Your task to perform on an android device: clear history in the chrome app Image 0: 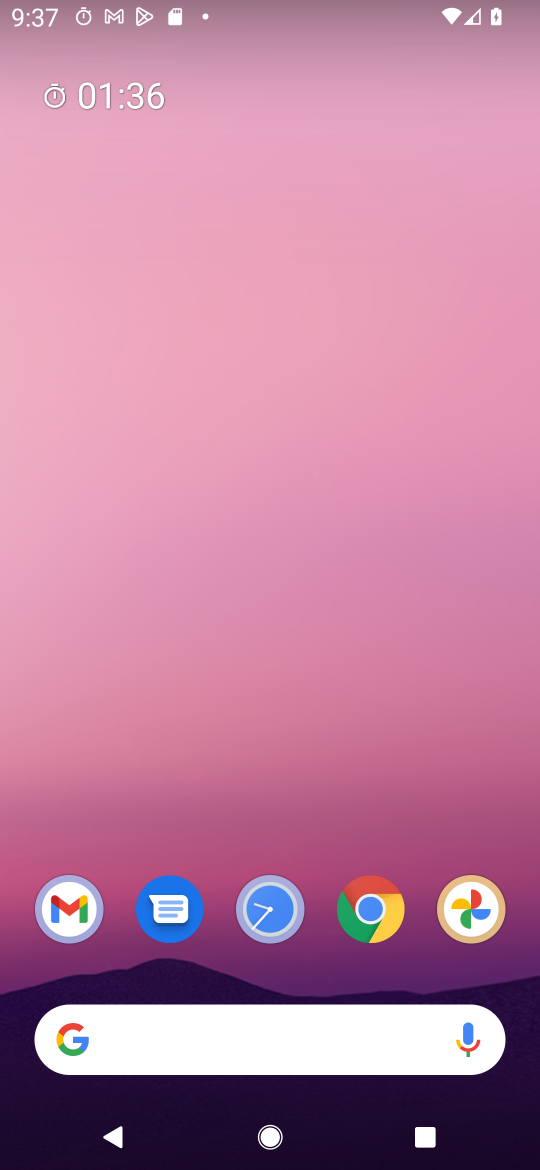
Step 0: press home button
Your task to perform on an android device: clear history in the chrome app Image 1: 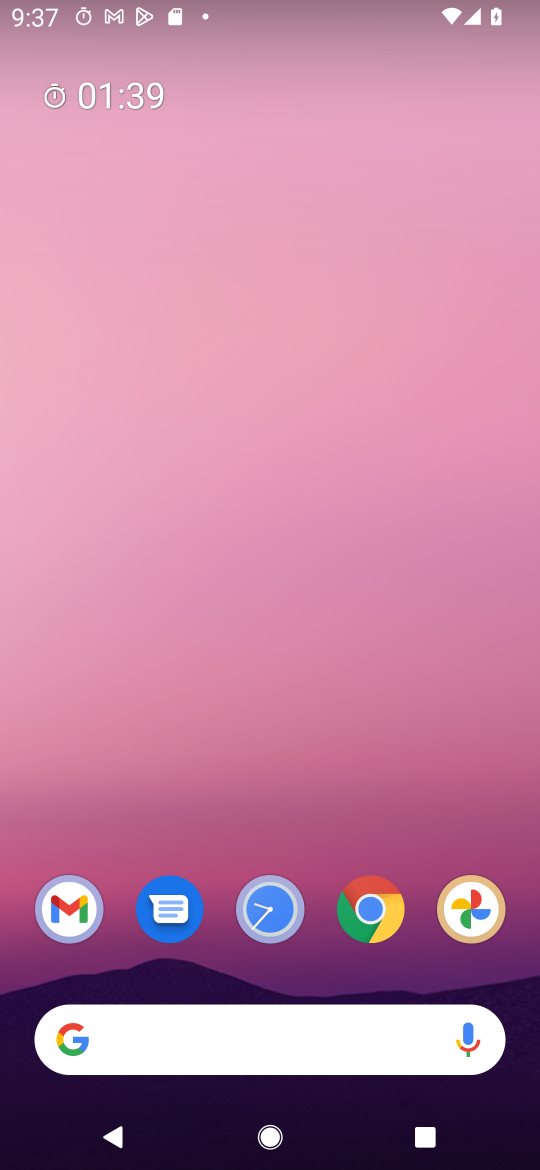
Step 1: drag from (394, 806) to (378, 286)
Your task to perform on an android device: clear history in the chrome app Image 2: 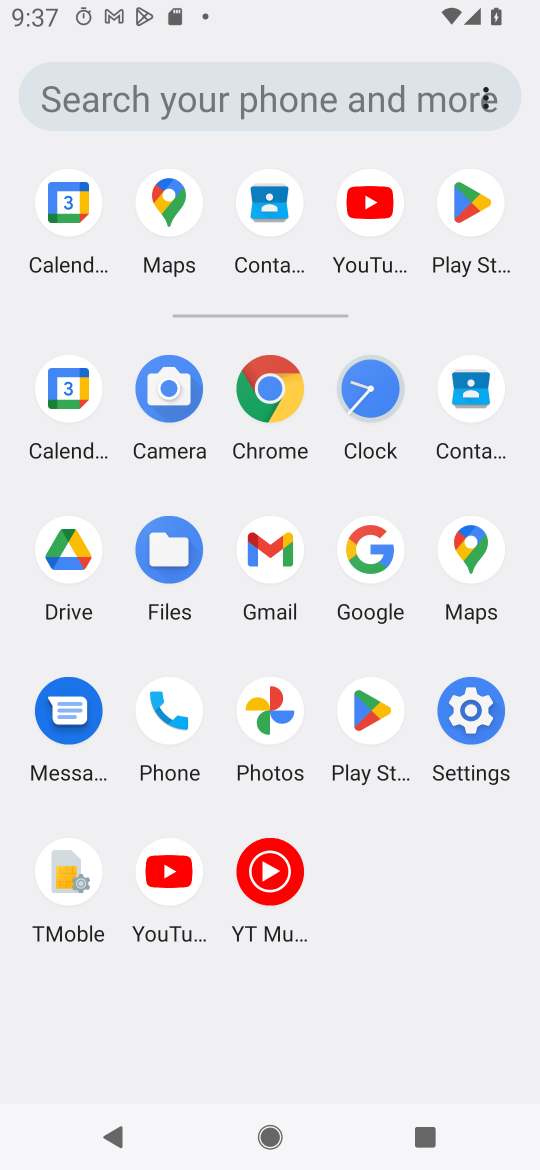
Step 2: click (268, 400)
Your task to perform on an android device: clear history in the chrome app Image 3: 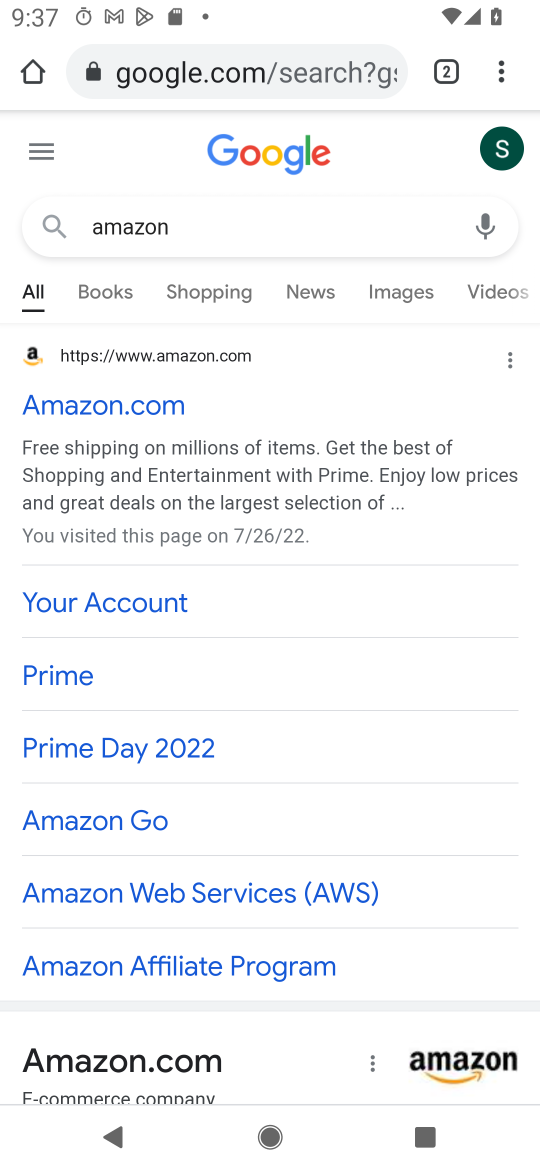
Step 3: click (502, 76)
Your task to perform on an android device: clear history in the chrome app Image 4: 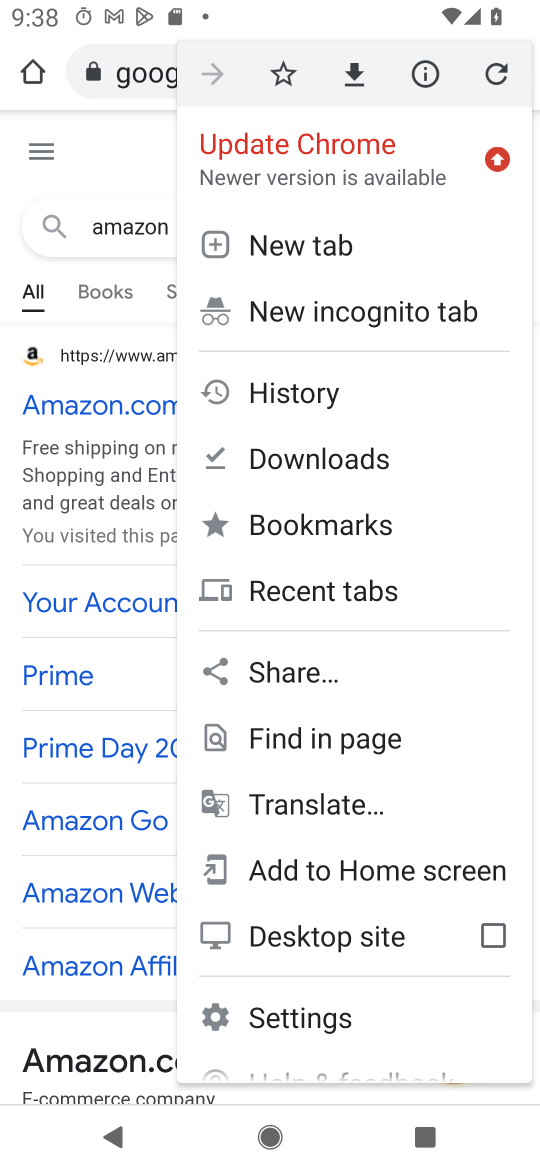
Step 4: click (371, 381)
Your task to perform on an android device: clear history in the chrome app Image 5: 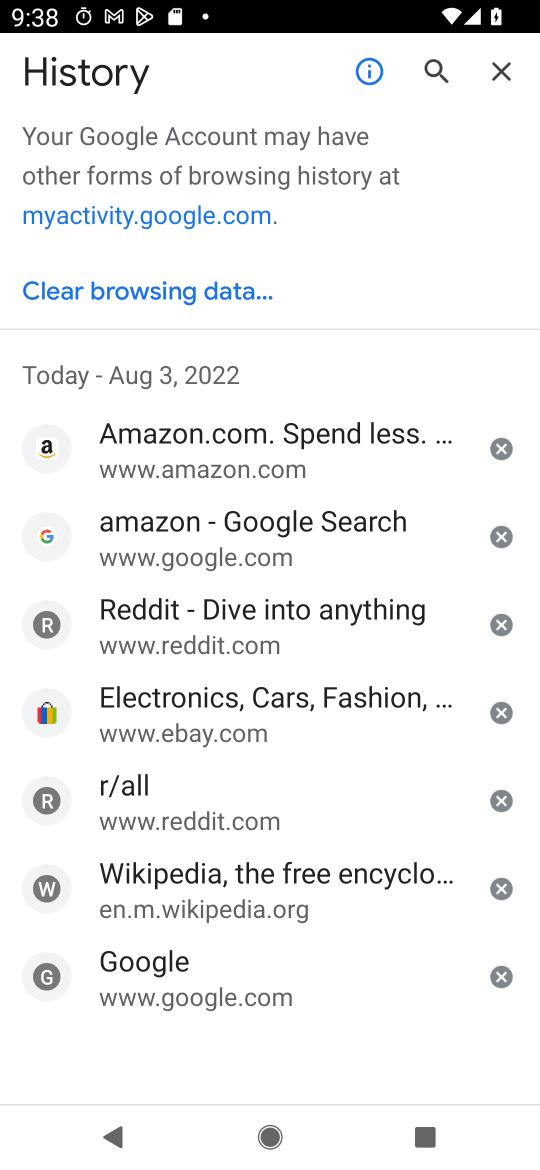
Step 5: click (284, 293)
Your task to perform on an android device: clear history in the chrome app Image 6: 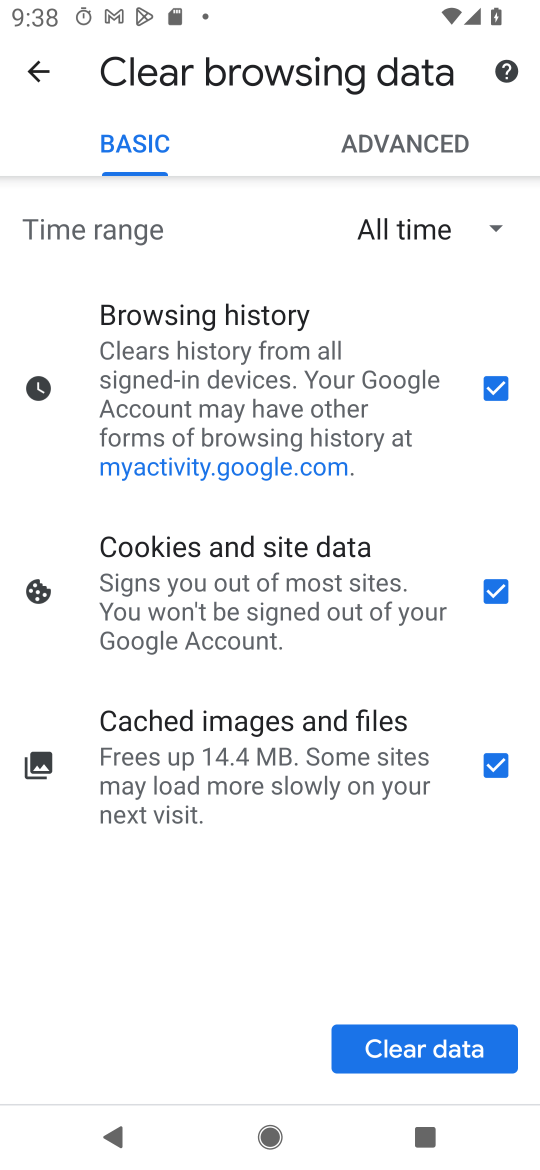
Step 6: click (437, 1041)
Your task to perform on an android device: clear history in the chrome app Image 7: 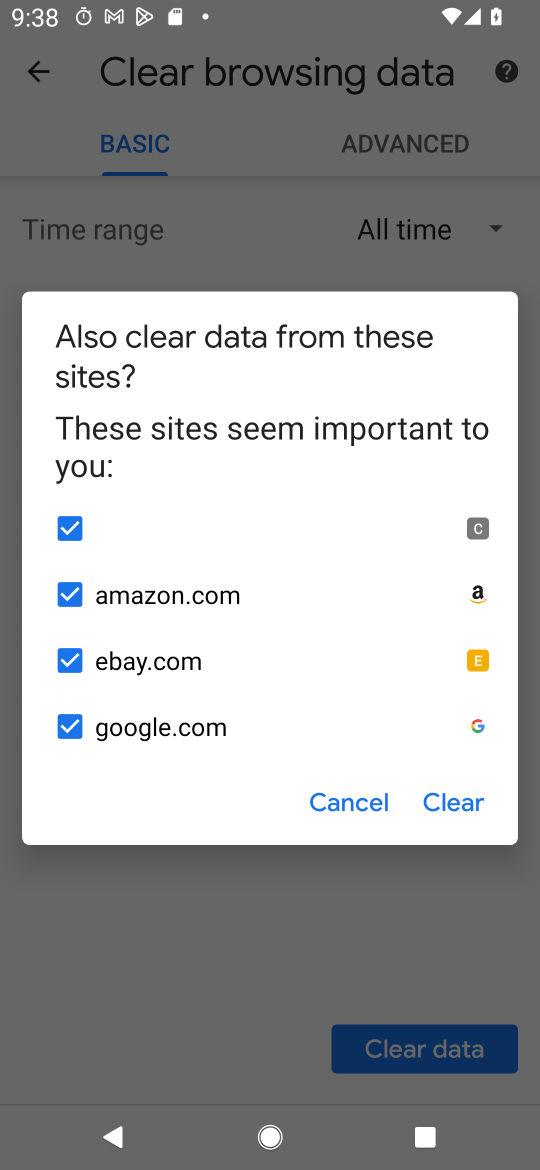
Step 7: click (466, 806)
Your task to perform on an android device: clear history in the chrome app Image 8: 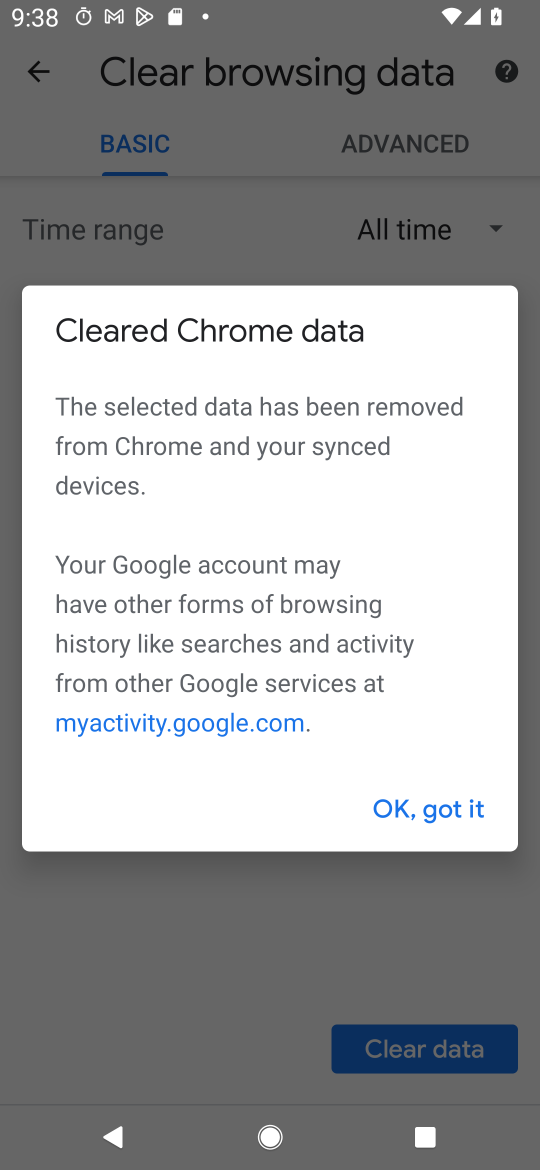
Step 8: click (466, 806)
Your task to perform on an android device: clear history in the chrome app Image 9: 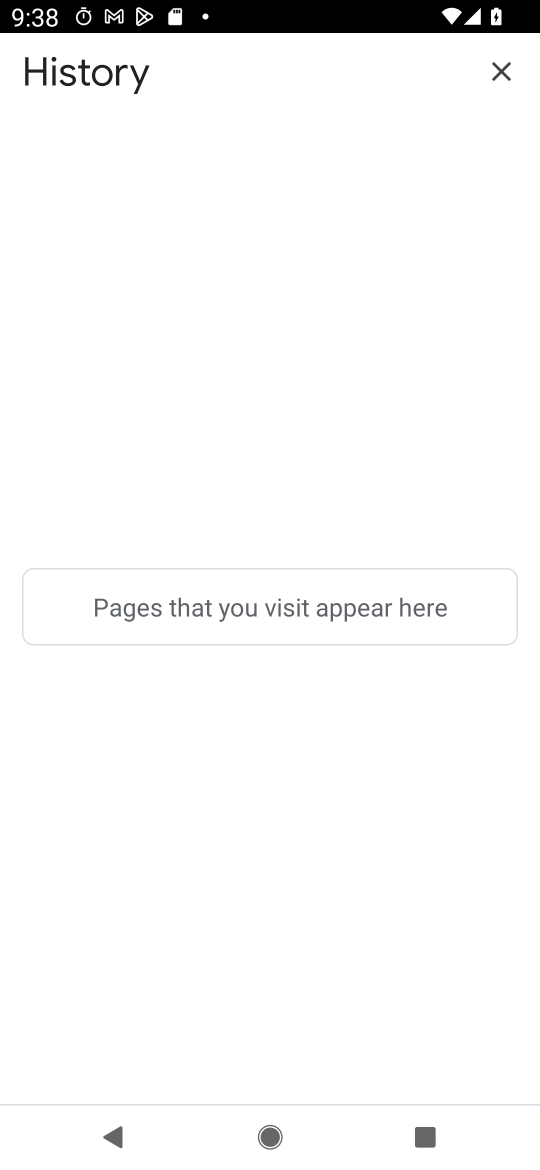
Step 9: task complete